Your task to perform on an android device: check battery use Image 0: 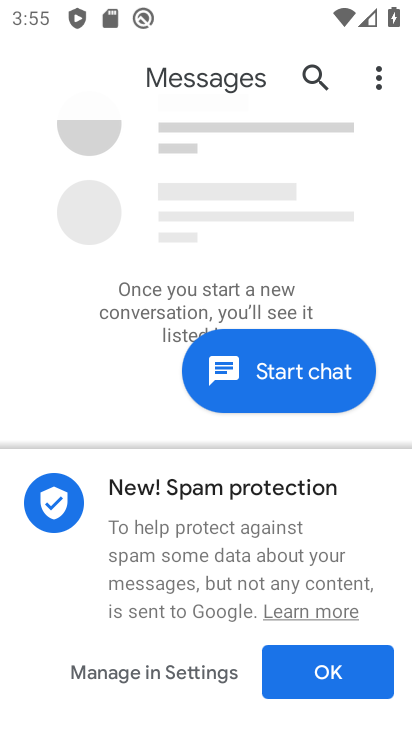
Step 0: press home button
Your task to perform on an android device: check battery use Image 1: 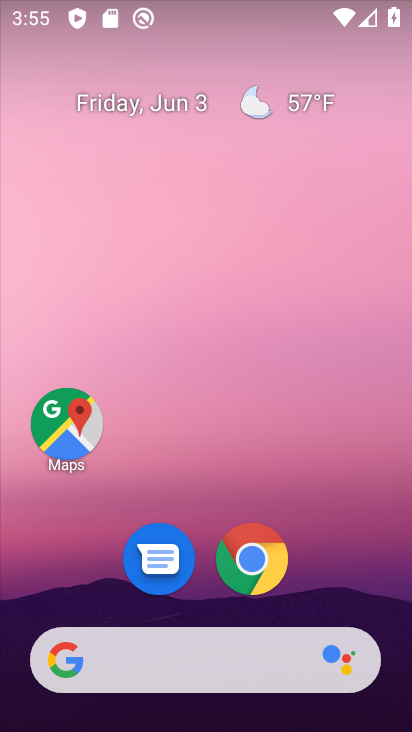
Step 1: drag from (340, 587) to (303, 91)
Your task to perform on an android device: check battery use Image 2: 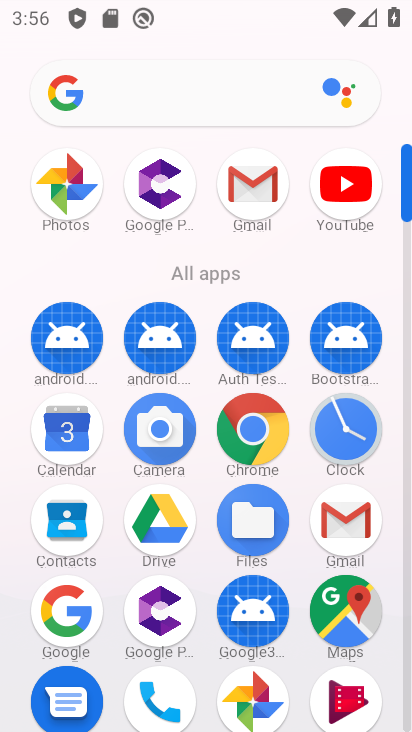
Step 2: drag from (196, 396) to (214, 122)
Your task to perform on an android device: check battery use Image 3: 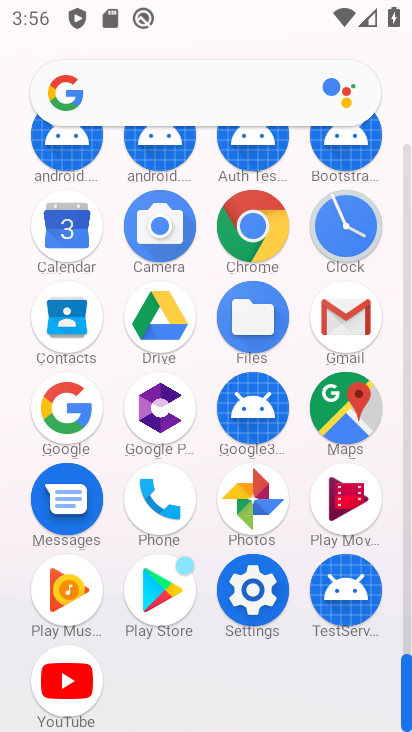
Step 3: click (250, 594)
Your task to perform on an android device: check battery use Image 4: 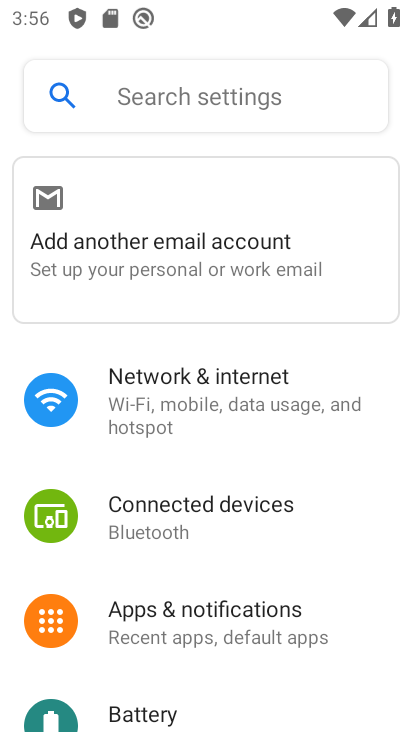
Step 4: drag from (282, 664) to (322, 241)
Your task to perform on an android device: check battery use Image 5: 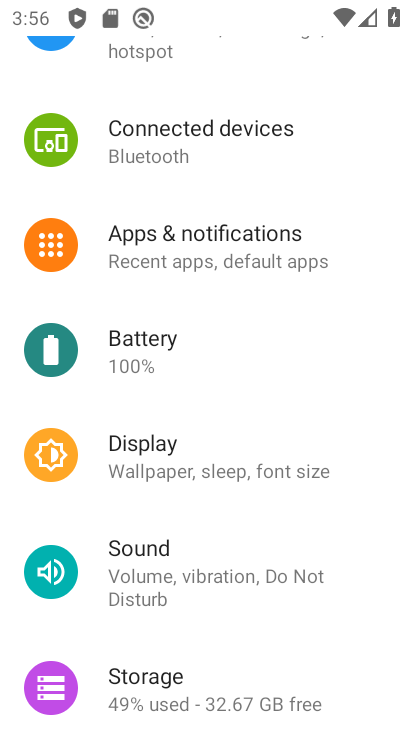
Step 5: click (131, 341)
Your task to perform on an android device: check battery use Image 6: 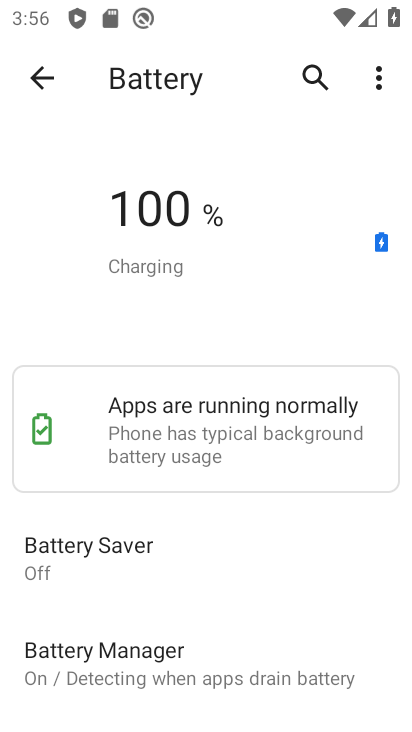
Step 6: task complete